Your task to perform on an android device: turn pop-ups off in chrome Image 0: 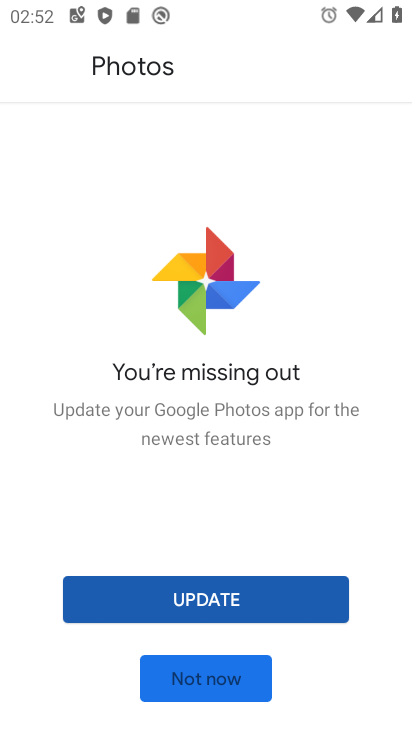
Step 0: press home button
Your task to perform on an android device: turn pop-ups off in chrome Image 1: 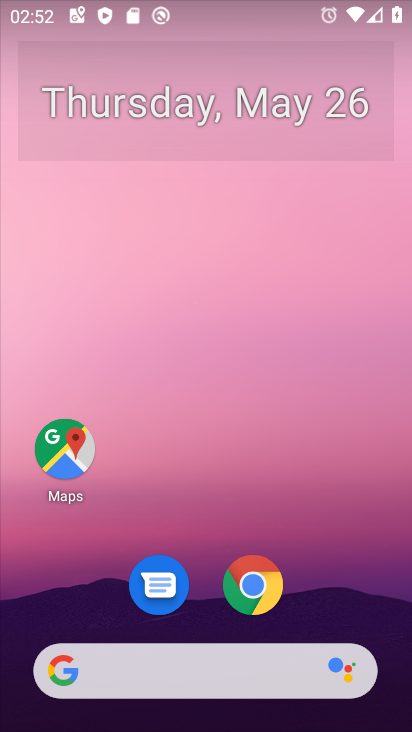
Step 1: click (266, 580)
Your task to perform on an android device: turn pop-ups off in chrome Image 2: 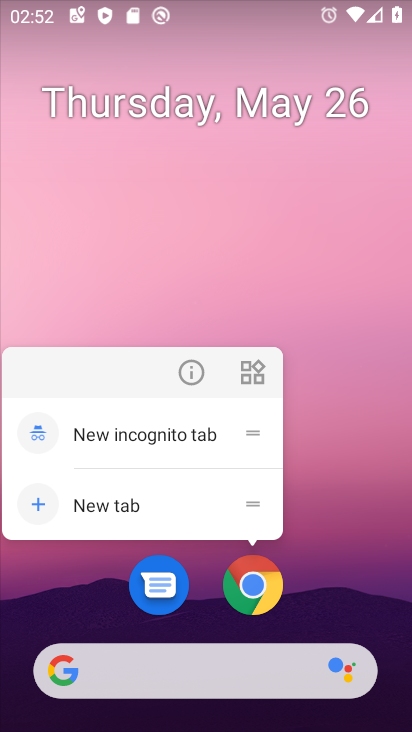
Step 2: click (266, 580)
Your task to perform on an android device: turn pop-ups off in chrome Image 3: 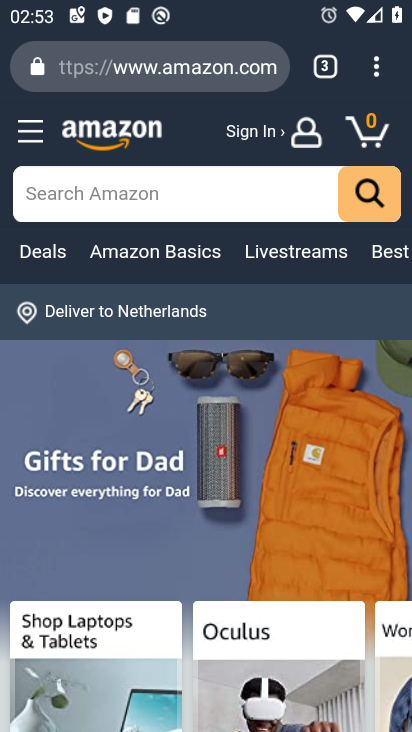
Step 3: click (376, 75)
Your task to perform on an android device: turn pop-ups off in chrome Image 4: 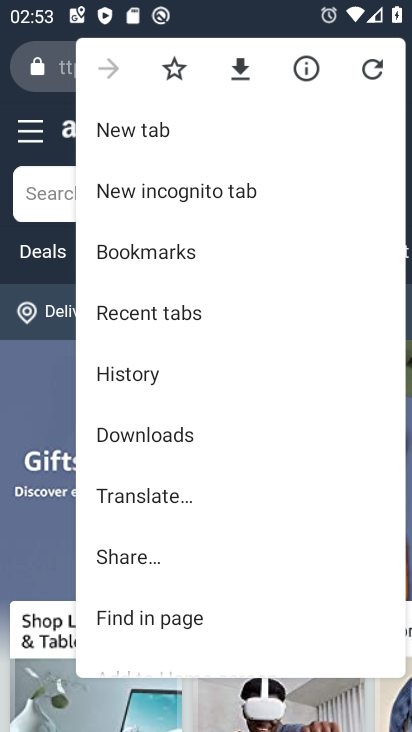
Step 4: drag from (275, 513) to (318, 270)
Your task to perform on an android device: turn pop-ups off in chrome Image 5: 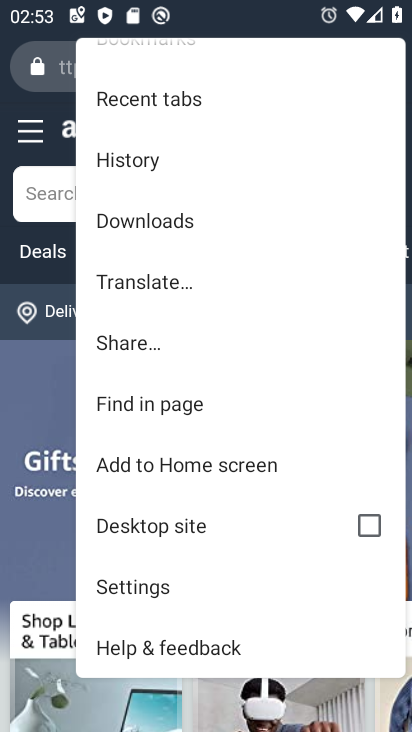
Step 5: click (178, 581)
Your task to perform on an android device: turn pop-ups off in chrome Image 6: 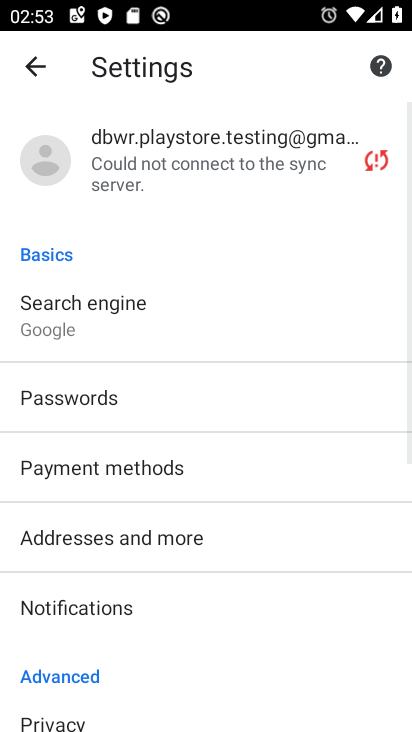
Step 6: drag from (199, 630) to (252, 190)
Your task to perform on an android device: turn pop-ups off in chrome Image 7: 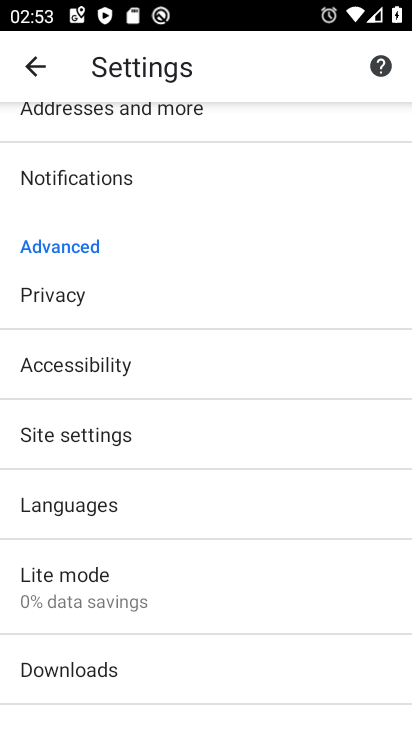
Step 7: click (194, 431)
Your task to perform on an android device: turn pop-ups off in chrome Image 8: 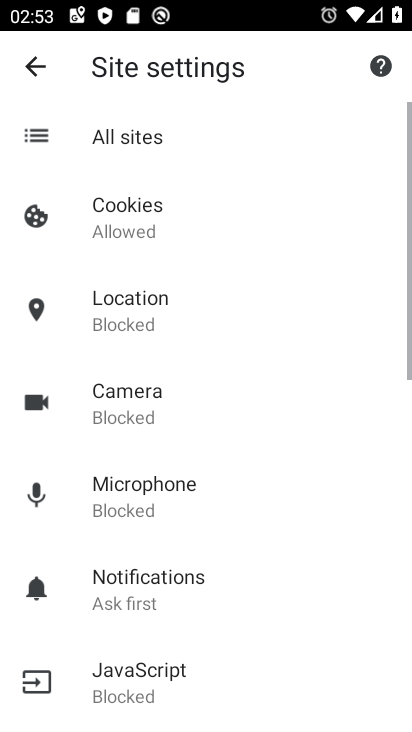
Step 8: drag from (225, 555) to (271, 316)
Your task to perform on an android device: turn pop-ups off in chrome Image 9: 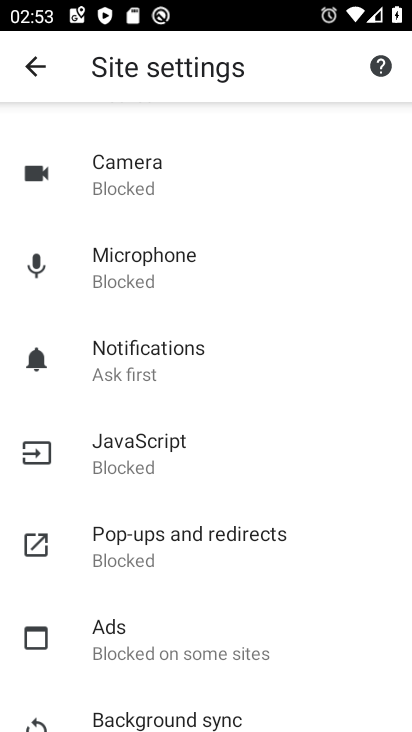
Step 9: click (227, 535)
Your task to perform on an android device: turn pop-ups off in chrome Image 10: 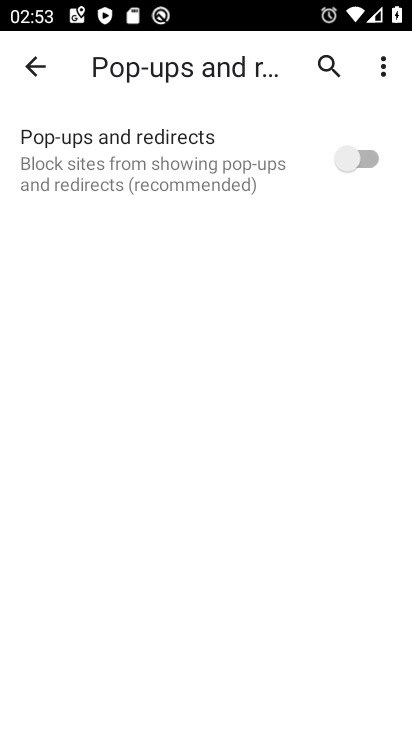
Step 10: task complete